Your task to perform on an android device: Show me popular videos on Youtube Image 0: 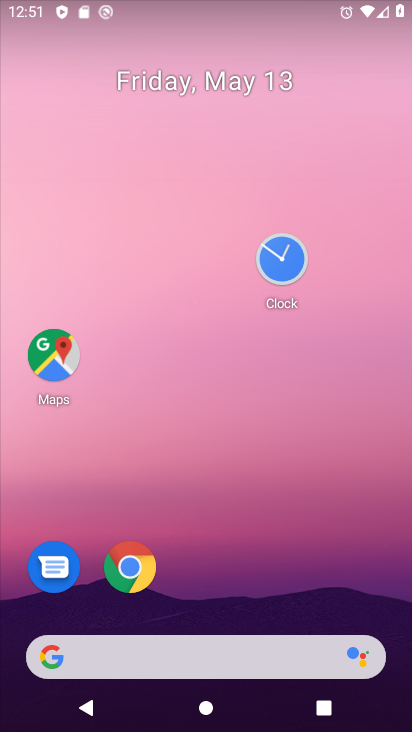
Step 0: drag from (259, 600) to (228, 92)
Your task to perform on an android device: Show me popular videos on Youtube Image 1: 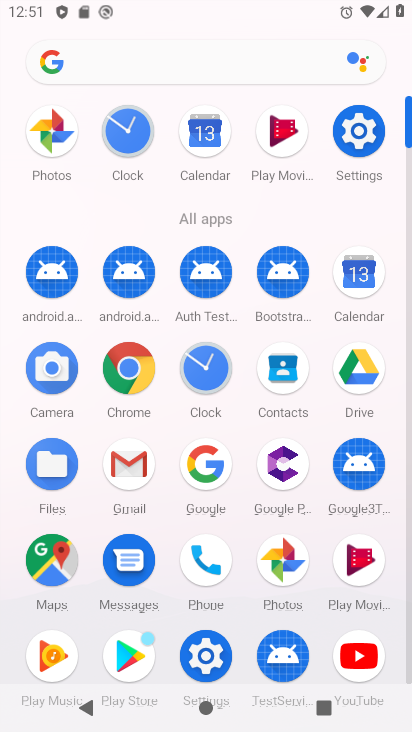
Step 1: click (378, 661)
Your task to perform on an android device: Show me popular videos on Youtube Image 2: 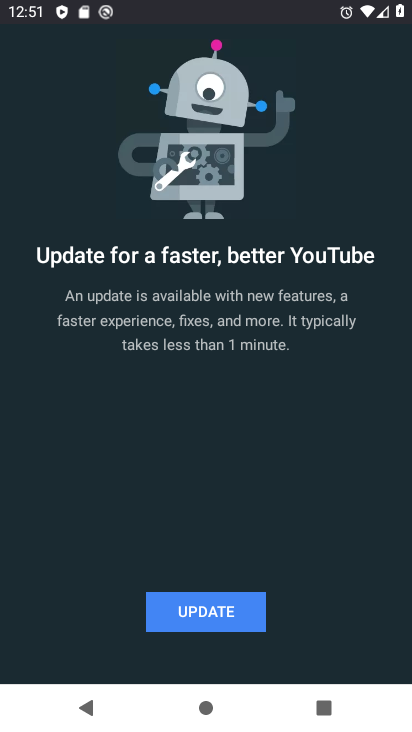
Step 2: click (218, 617)
Your task to perform on an android device: Show me popular videos on Youtube Image 3: 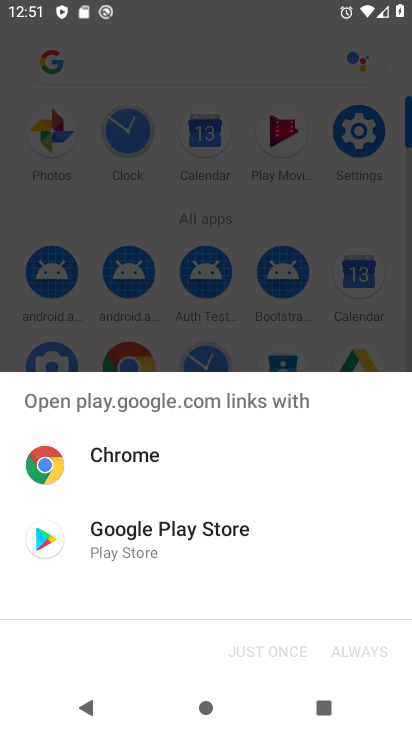
Step 3: click (160, 542)
Your task to perform on an android device: Show me popular videos on Youtube Image 4: 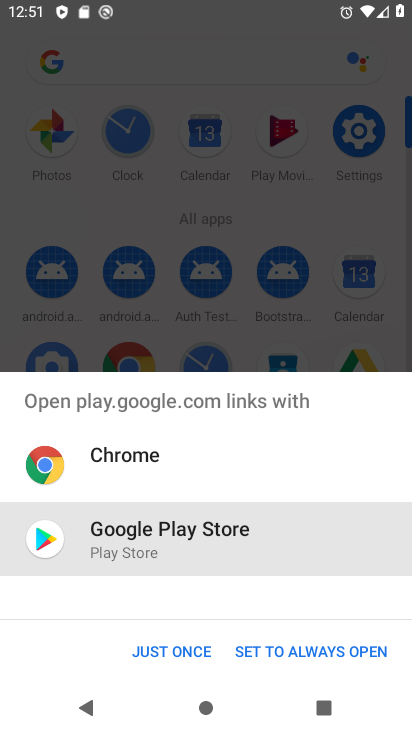
Step 4: click (254, 634)
Your task to perform on an android device: Show me popular videos on Youtube Image 5: 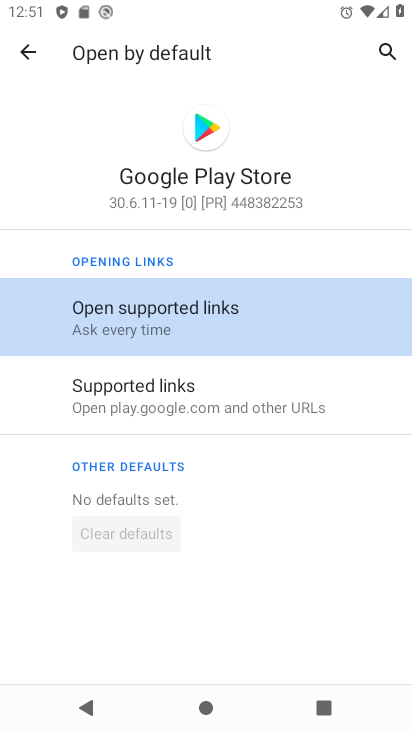
Step 5: click (40, 58)
Your task to perform on an android device: Show me popular videos on Youtube Image 6: 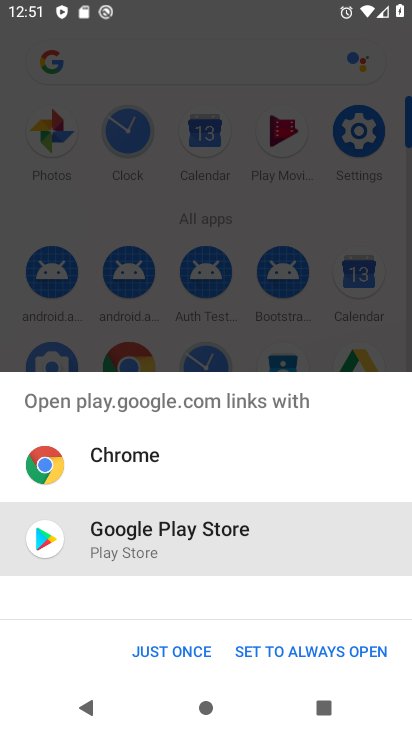
Step 6: click (179, 648)
Your task to perform on an android device: Show me popular videos on Youtube Image 7: 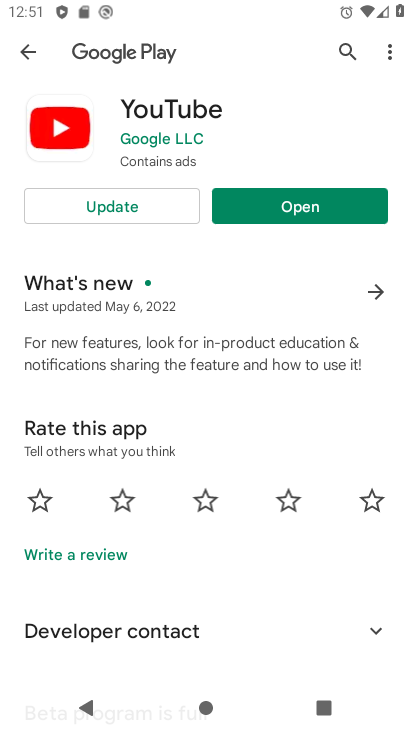
Step 7: click (95, 200)
Your task to perform on an android device: Show me popular videos on Youtube Image 8: 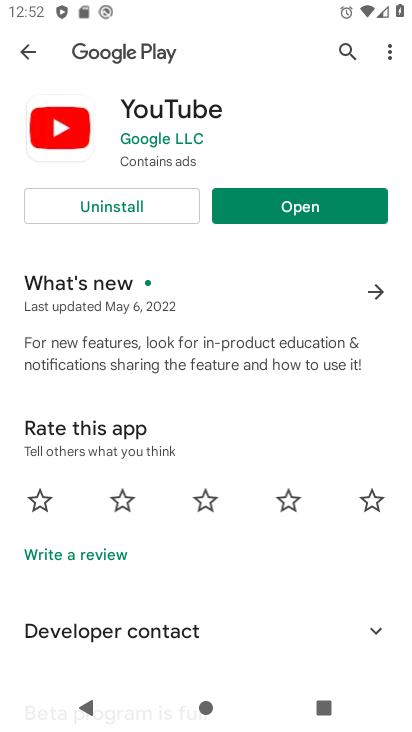
Step 8: click (237, 197)
Your task to perform on an android device: Show me popular videos on Youtube Image 9: 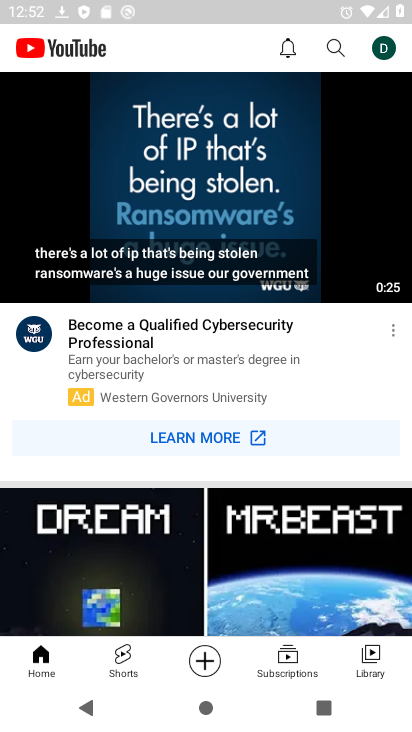
Step 9: task complete